Your task to perform on an android device: turn off picture-in-picture Image 0: 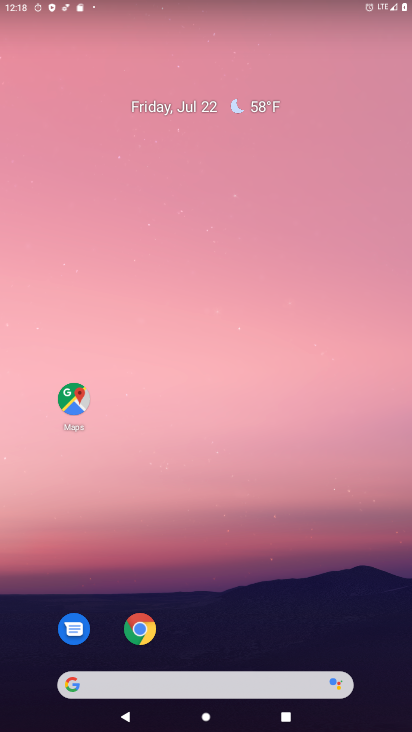
Step 0: drag from (317, 544) to (336, 120)
Your task to perform on an android device: turn off picture-in-picture Image 1: 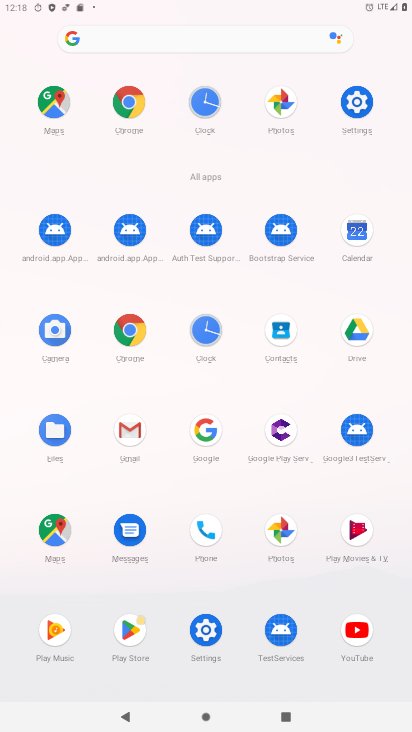
Step 1: click (367, 107)
Your task to perform on an android device: turn off picture-in-picture Image 2: 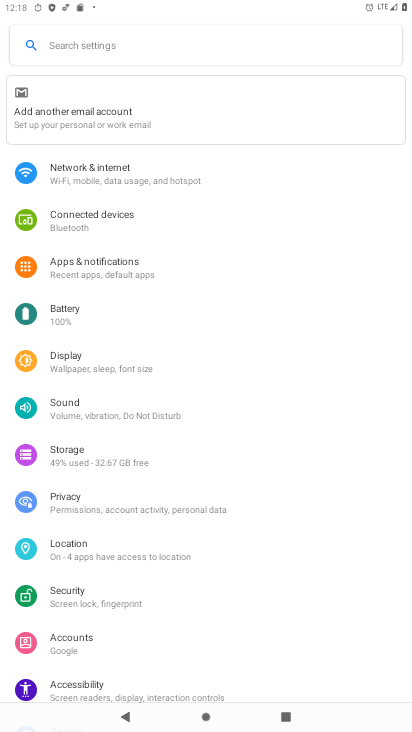
Step 2: click (134, 270)
Your task to perform on an android device: turn off picture-in-picture Image 3: 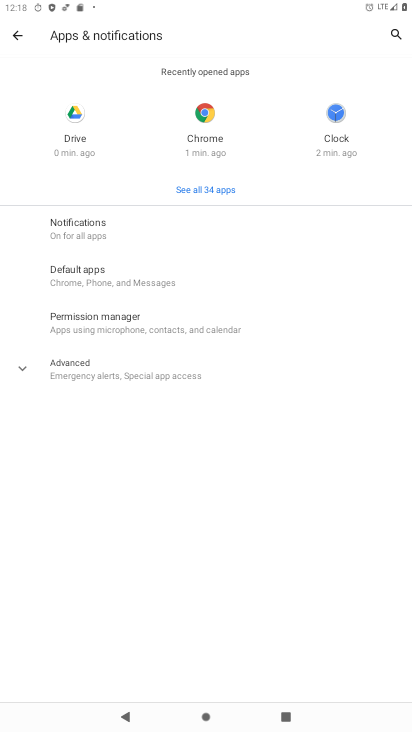
Step 3: click (109, 360)
Your task to perform on an android device: turn off picture-in-picture Image 4: 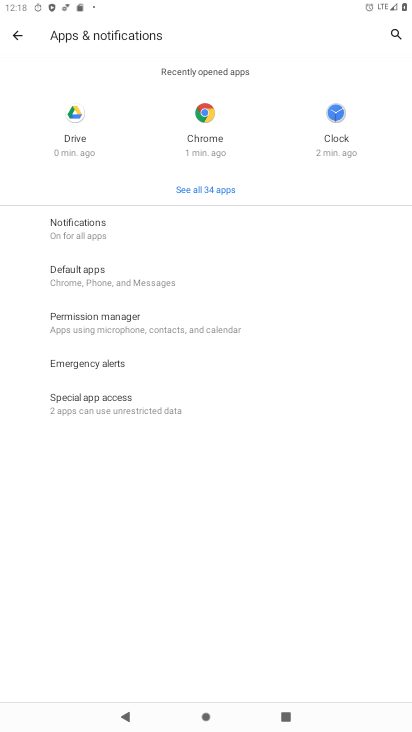
Step 4: click (110, 409)
Your task to perform on an android device: turn off picture-in-picture Image 5: 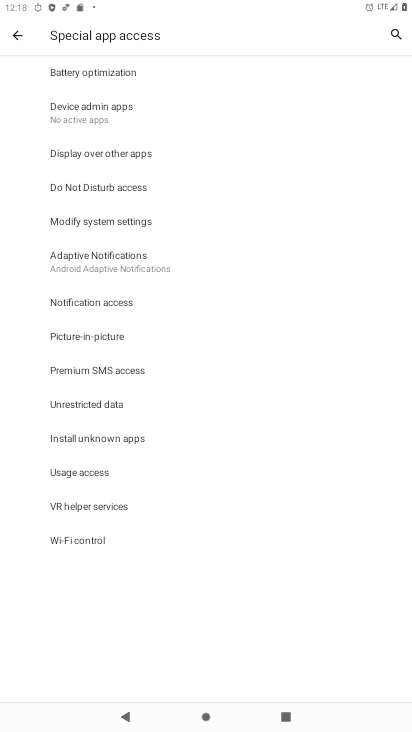
Step 5: click (109, 342)
Your task to perform on an android device: turn off picture-in-picture Image 6: 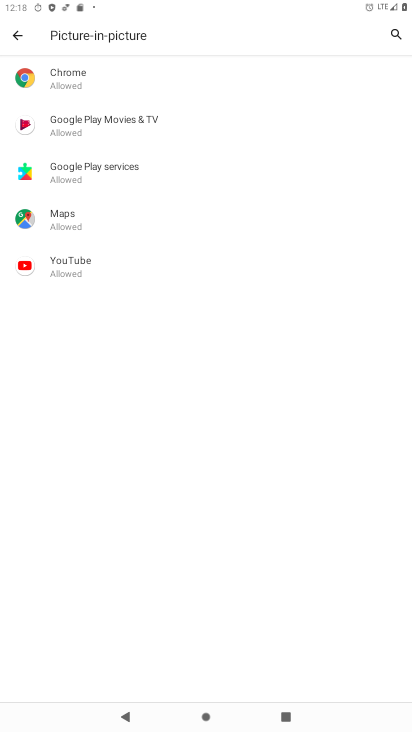
Step 6: click (103, 274)
Your task to perform on an android device: turn off picture-in-picture Image 7: 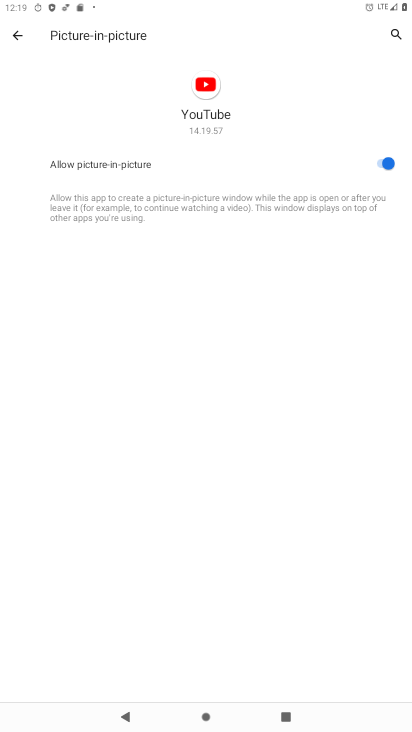
Step 7: click (391, 165)
Your task to perform on an android device: turn off picture-in-picture Image 8: 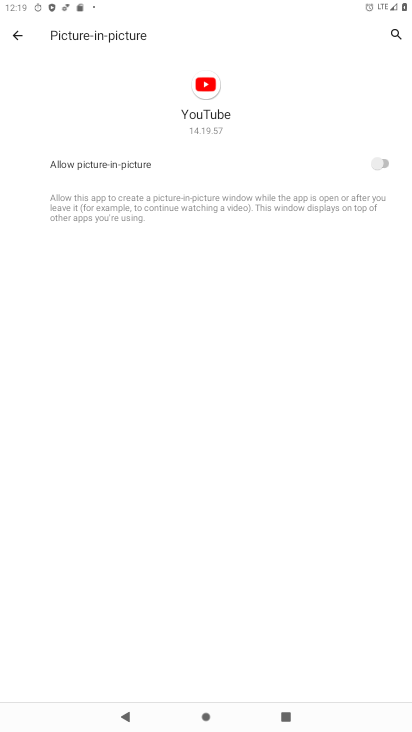
Step 8: task complete